Your task to perform on an android device: What is the news today? Image 0: 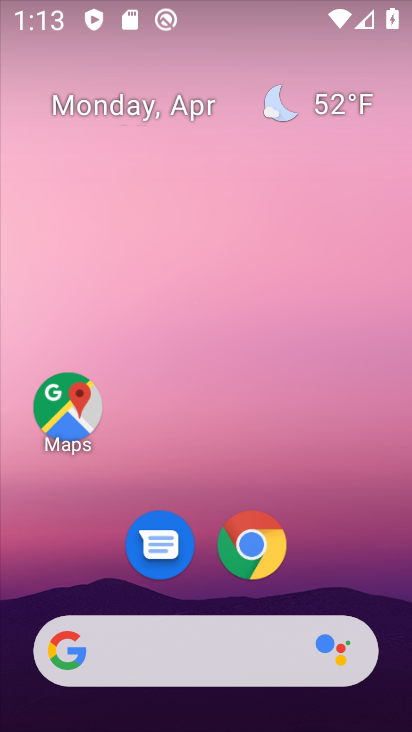
Step 0: drag from (4, 300) to (374, 331)
Your task to perform on an android device: What is the news today? Image 1: 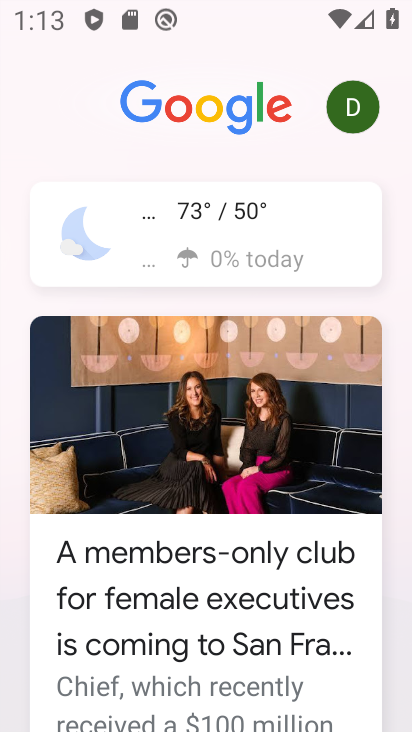
Step 1: task complete